Your task to perform on an android device: turn on sleep mode Image 0: 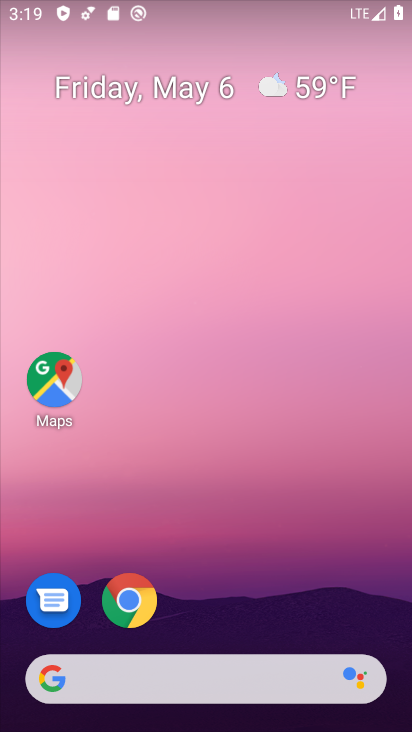
Step 0: drag from (250, 610) to (267, 132)
Your task to perform on an android device: turn on sleep mode Image 1: 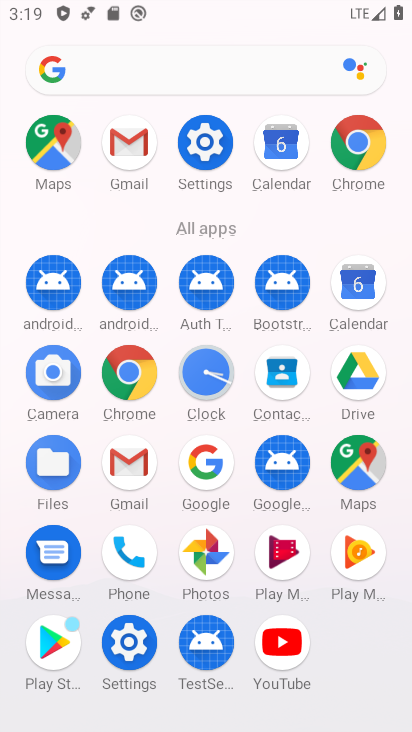
Step 1: click (215, 159)
Your task to perform on an android device: turn on sleep mode Image 2: 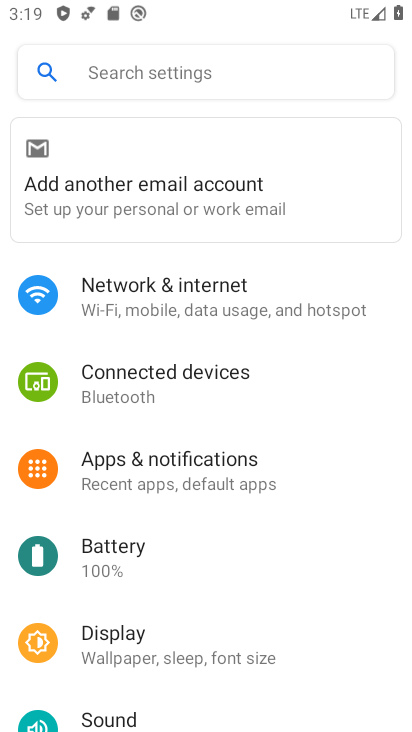
Step 2: click (166, 77)
Your task to perform on an android device: turn on sleep mode Image 3: 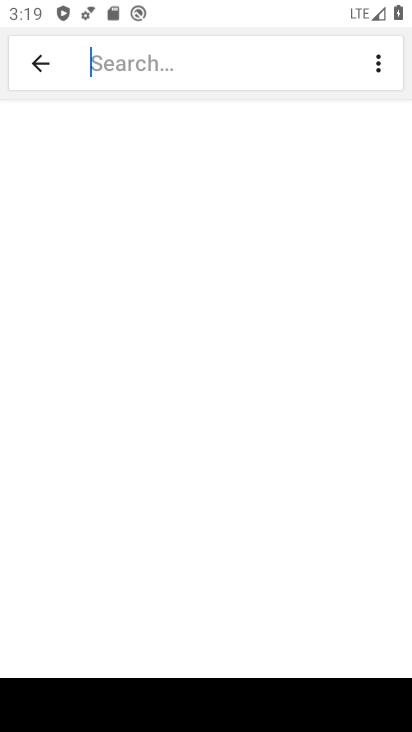
Step 3: type "sleep mode"
Your task to perform on an android device: turn on sleep mode Image 4: 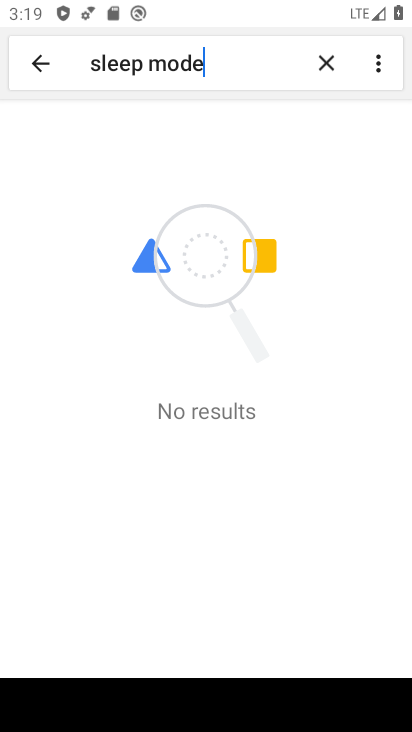
Step 4: task complete